Your task to perform on an android device: delete the emails in spam in the gmail app Image 0: 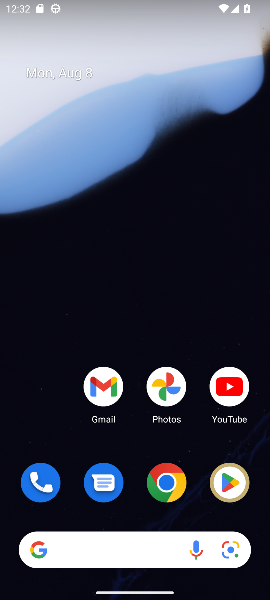
Step 0: drag from (159, 542) to (125, 193)
Your task to perform on an android device: delete the emails in spam in the gmail app Image 1: 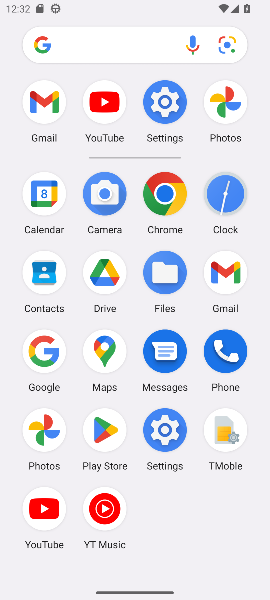
Step 1: click (225, 274)
Your task to perform on an android device: delete the emails in spam in the gmail app Image 2: 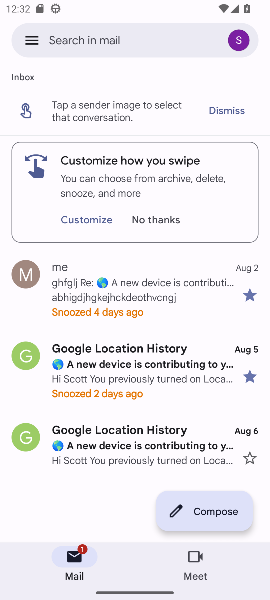
Step 2: click (29, 41)
Your task to perform on an android device: delete the emails in spam in the gmail app Image 3: 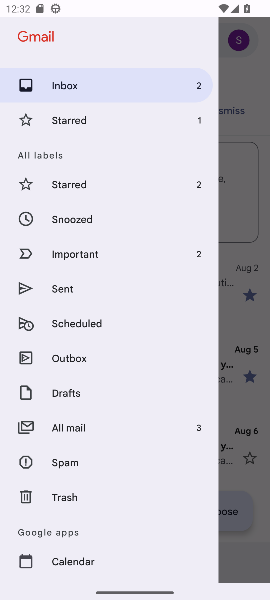
Step 3: click (69, 463)
Your task to perform on an android device: delete the emails in spam in the gmail app Image 4: 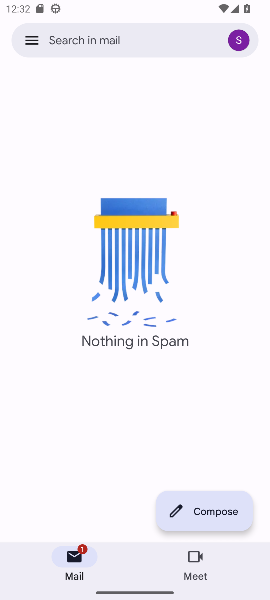
Step 4: task complete